Your task to perform on an android device: Open calendar and show me the first week of next month Image 0: 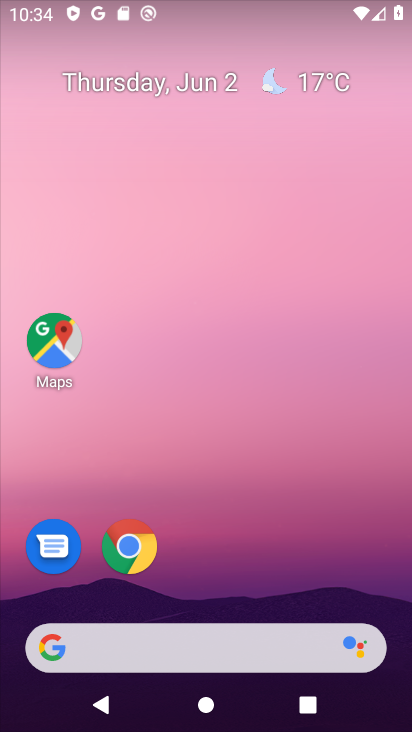
Step 0: drag from (234, 550) to (211, 20)
Your task to perform on an android device: Open calendar and show me the first week of next month Image 1: 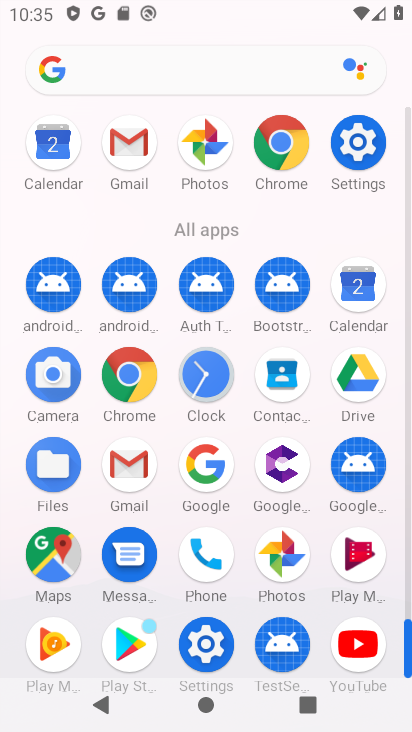
Step 1: drag from (10, 511) to (20, 154)
Your task to perform on an android device: Open calendar and show me the first week of next month Image 2: 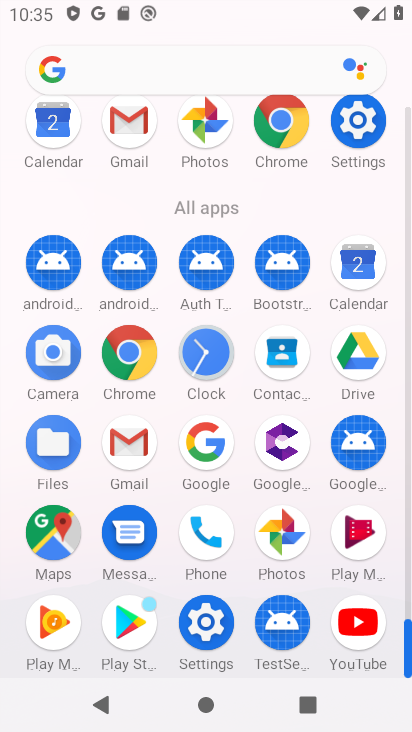
Step 2: click (354, 252)
Your task to perform on an android device: Open calendar and show me the first week of next month Image 3: 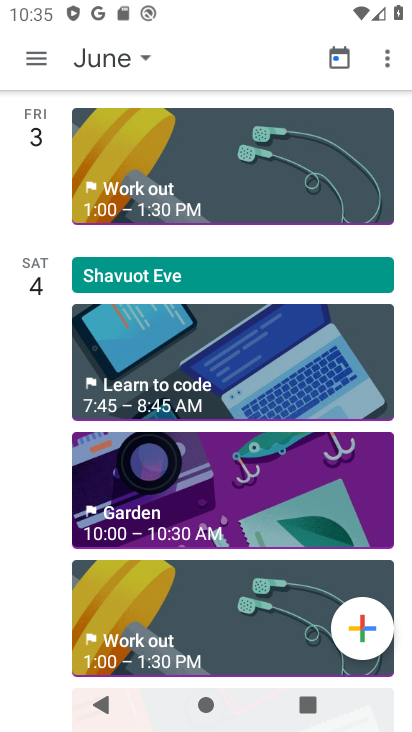
Step 3: click (113, 59)
Your task to perform on an android device: Open calendar and show me the first week of next month Image 4: 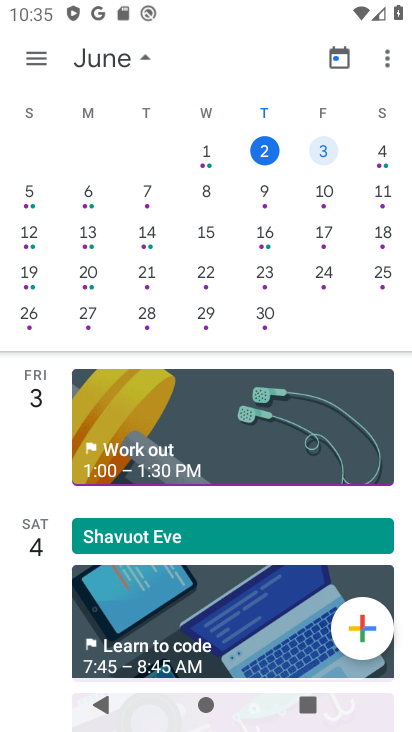
Step 4: drag from (378, 224) to (0, 217)
Your task to perform on an android device: Open calendar and show me the first week of next month Image 5: 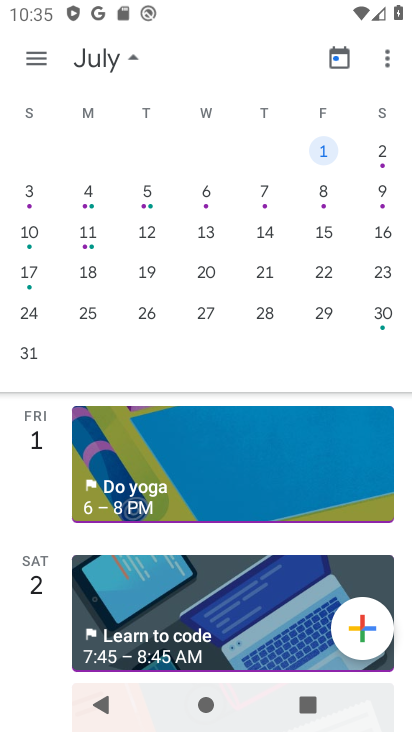
Step 5: click (28, 182)
Your task to perform on an android device: Open calendar and show me the first week of next month Image 6: 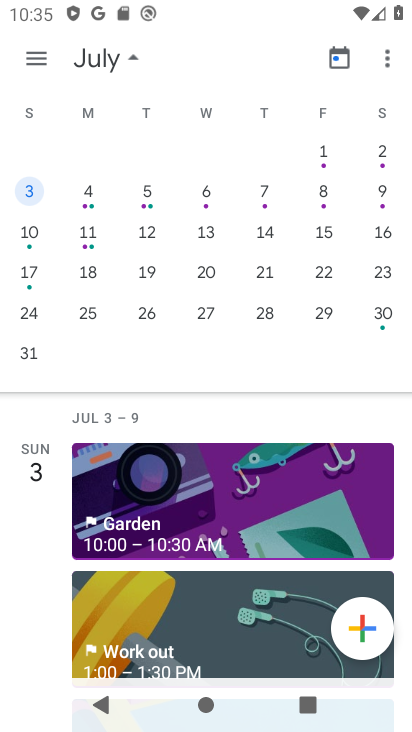
Step 6: click (40, 66)
Your task to perform on an android device: Open calendar and show me the first week of next month Image 7: 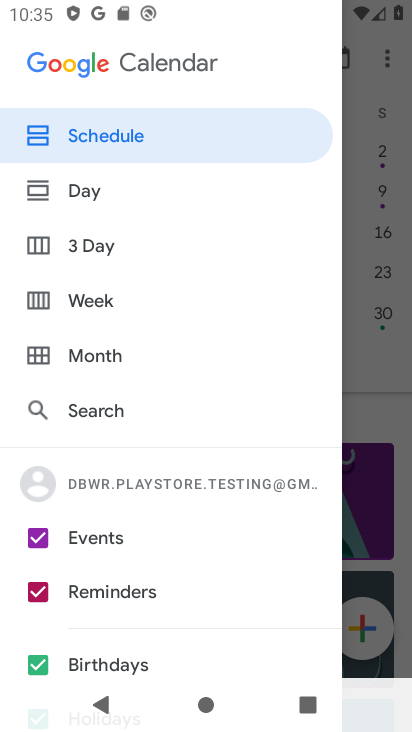
Step 7: click (108, 293)
Your task to perform on an android device: Open calendar and show me the first week of next month Image 8: 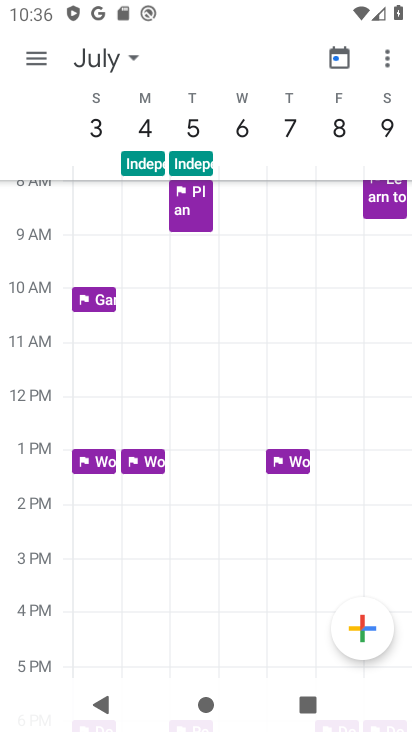
Step 8: task complete